Your task to perform on an android device: see creations saved in the google photos Image 0: 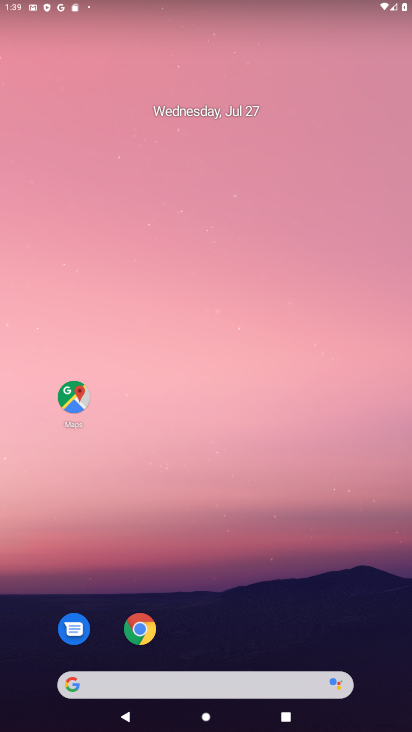
Step 0: task complete